Your task to perform on an android device: open a bookmark in the chrome app Image 0: 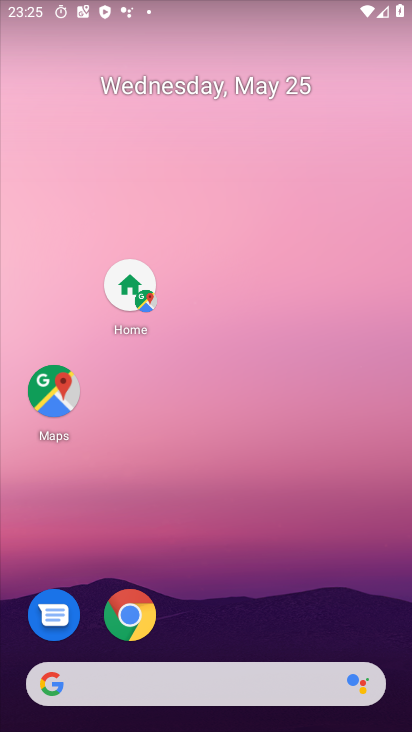
Step 0: press home button
Your task to perform on an android device: open a bookmark in the chrome app Image 1: 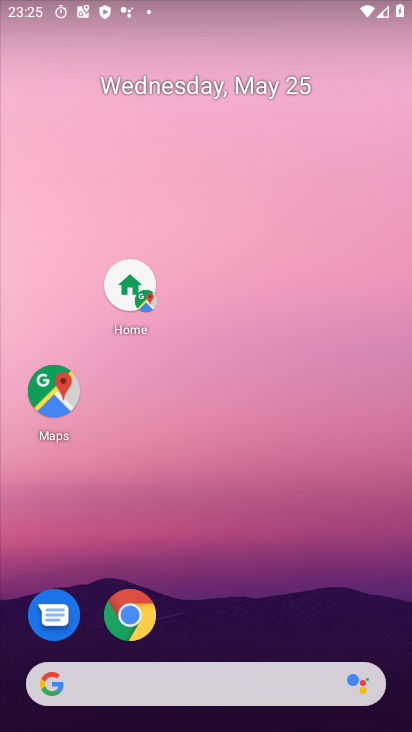
Step 1: click (132, 607)
Your task to perform on an android device: open a bookmark in the chrome app Image 2: 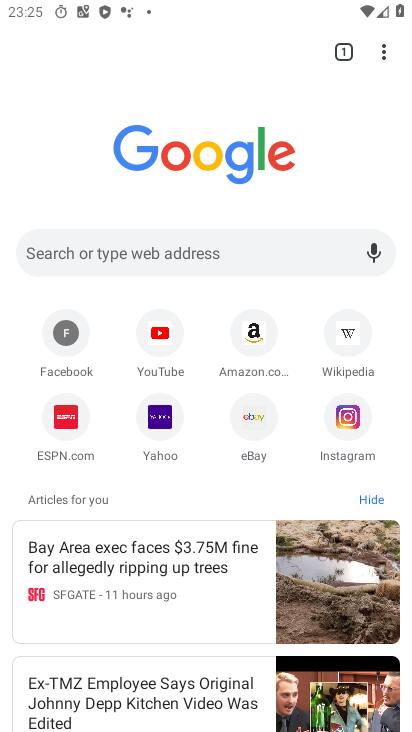
Step 2: task complete